Your task to perform on an android device: Show the shopping cart on bestbuy. Search for "macbook pro" on bestbuy, select the first entry, add it to the cart, then select checkout. Image 0: 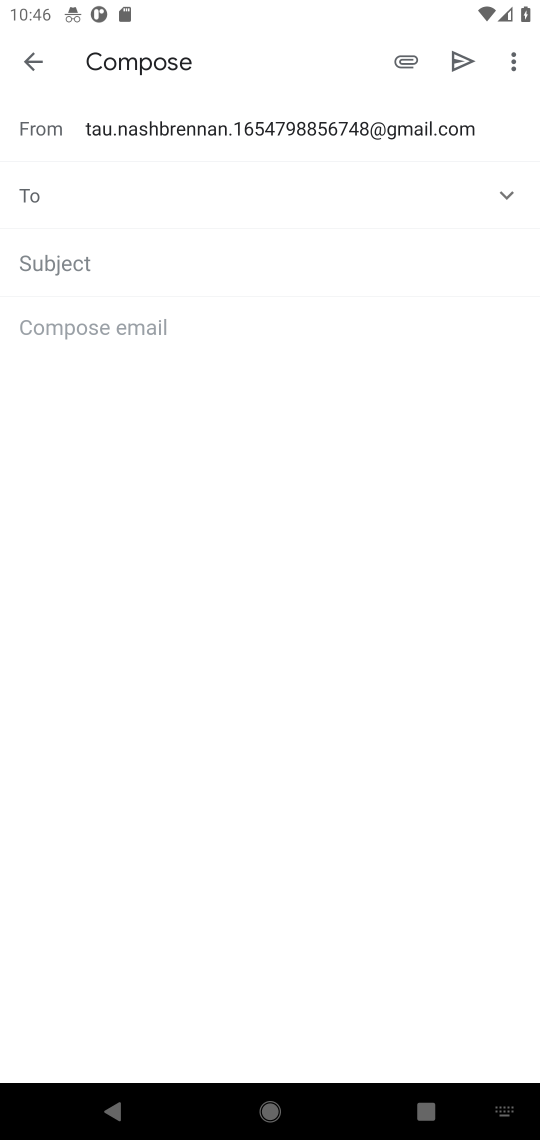
Step 0: press home button
Your task to perform on an android device: Show the shopping cart on bestbuy. Search for "macbook pro" on bestbuy, select the first entry, add it to the cart, then select checkout. Image 1: 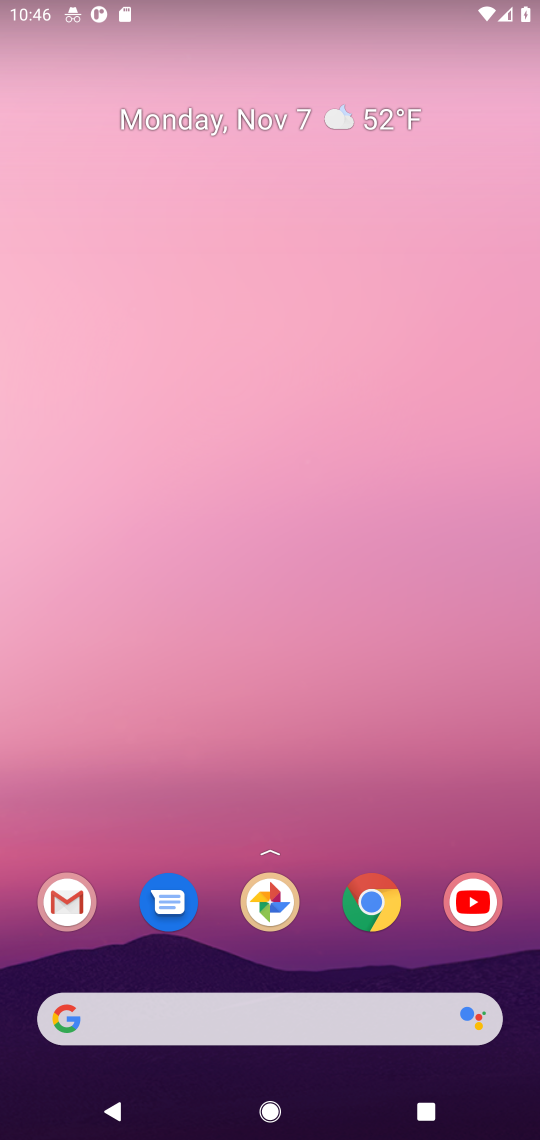
Step 1: click (373, 909)
Your task to perform on an android device: Show the shopping cart on bestbuy. Search for "macbook pro" on bestbuy, select the first entry, add it to the cart, then select checkout. Image 2: 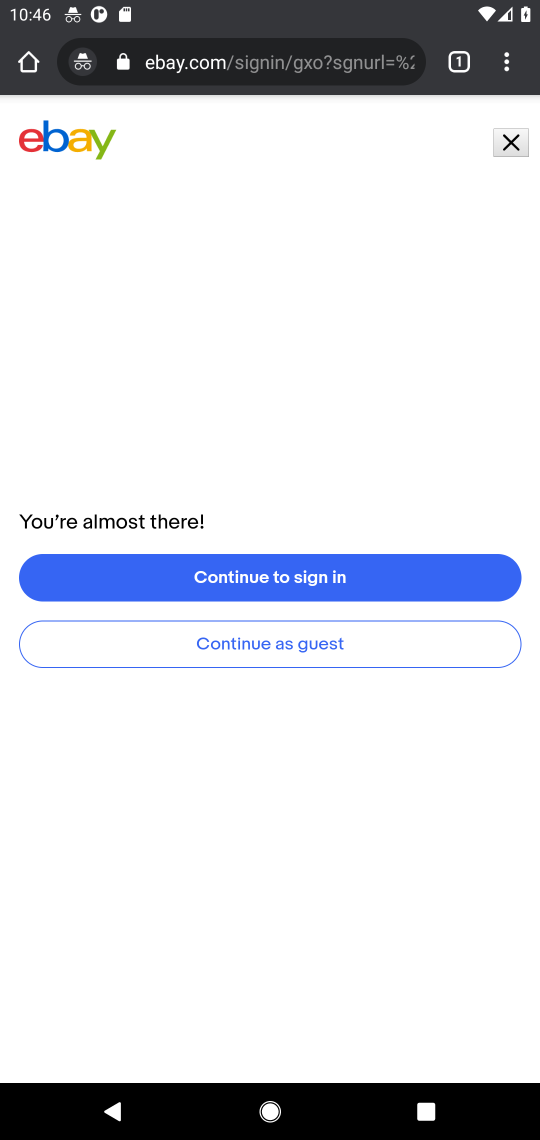
Step 2: click (512, 143)
Your task to perform on an android device: Show the shopping cart on bestbuy. Search for "macbook pro" on bestbuy, select the first entry, add it to the cart, then select checkout. Image 3: 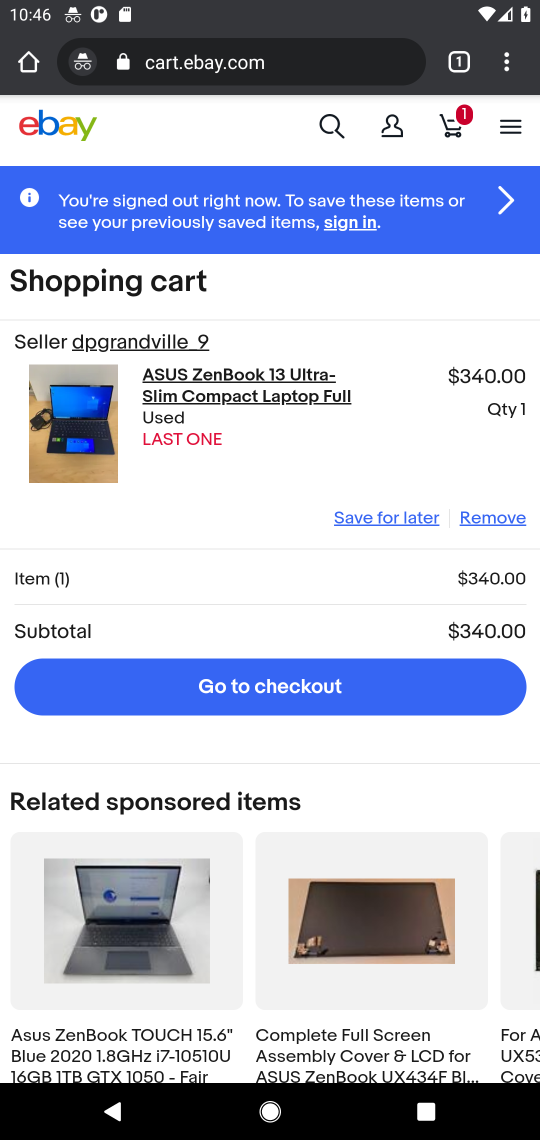
Step 3: click (228, 48)
Your task to perform on an android device: Show the shopping cart on bestbuy. Search for "macbook pro" on bestbuy, select the first entry, add it to the cart, then select checkout. Image 4: 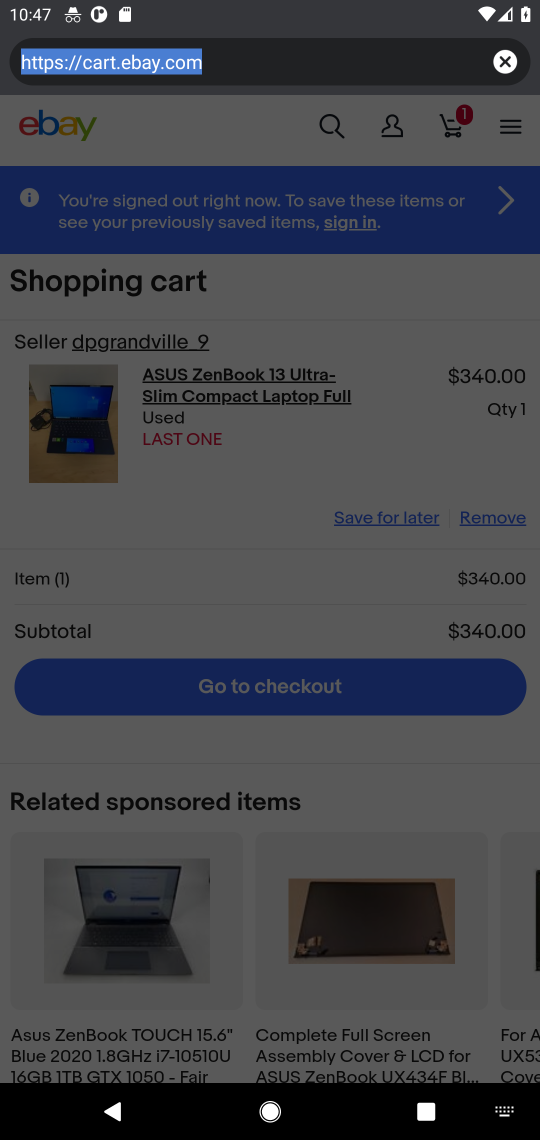
Step 4: type "bestbuy.com"
Your task to perform on an android device: Show the shopping cart on bestbuy. Search for "macbook pro" on bestbuy, select the first entry, add it to the cart, then select checkout. Image 5: 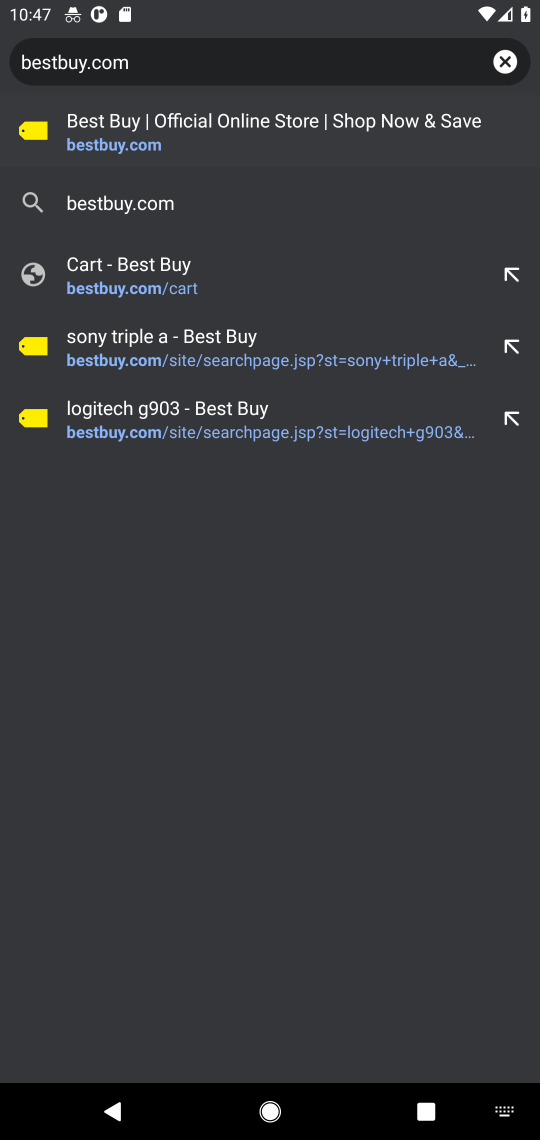
Step 5: click (92, 135)
Your task to perform on an android device: Show the shopping cart on bestbuy. Search for "macbook pro" on bestbuy, select the first entry, add it to the cart, then select checkout. Image 6: 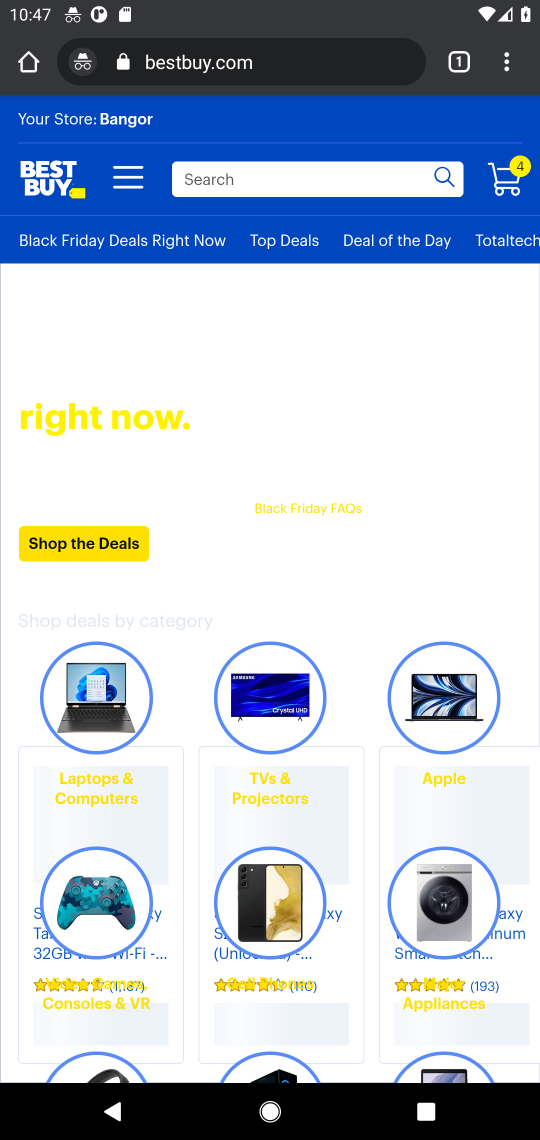
Step 6: click (506, 184)
Your task to perform on an android device: Show the shopping cart on bestbuy. Search for "macbook pro" on bestbuy, select the first entry, add it to the cart, then select checkout. Image 7: 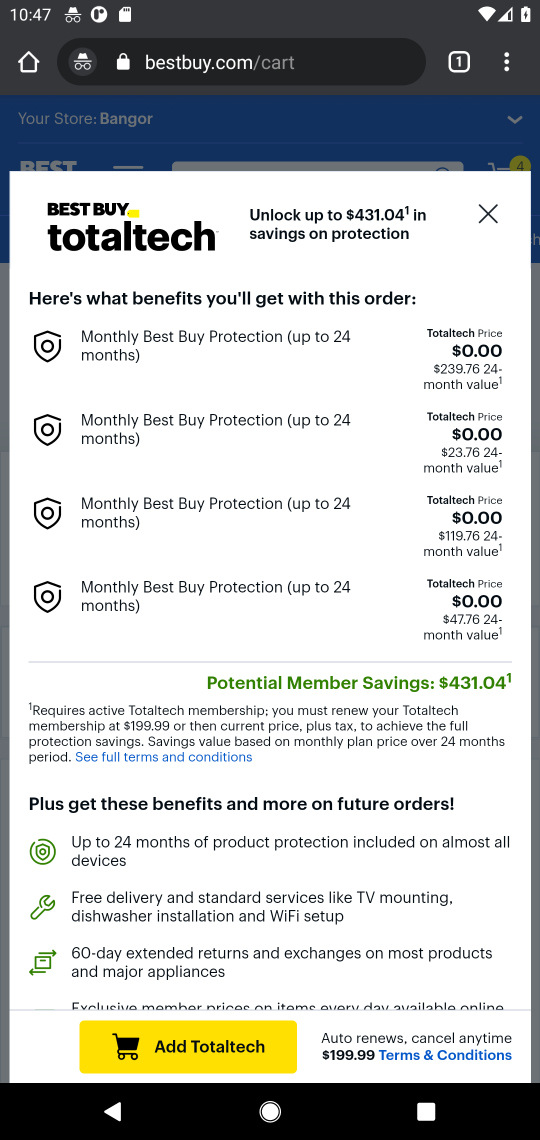
Step 7: click (493, 212)
Your task to perform on an android device: Show the shopping cart on bestbuy. Search for "macbook pro" on bestbuy, select the first entry, add it to the cart, then select checkout. Image 8: 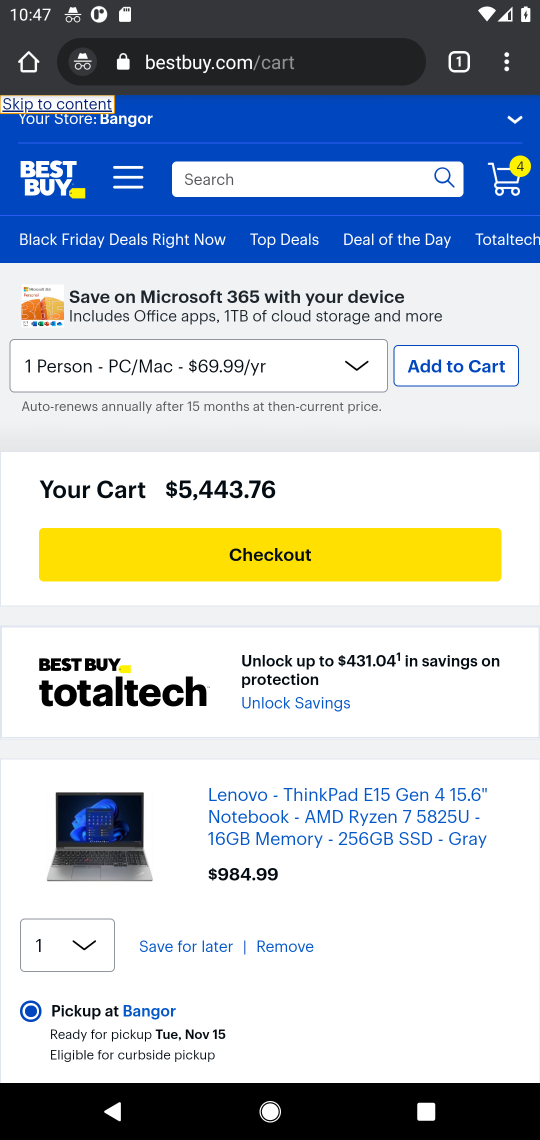
Step 8: drag from (331, 865) to (358, 613)
Your task to perform on an android device: Show the shopping cart on bestbuy. Search for "macbook pro" on bestbuy, select the first entry, add it to the cart, then select checkout. Image 9: 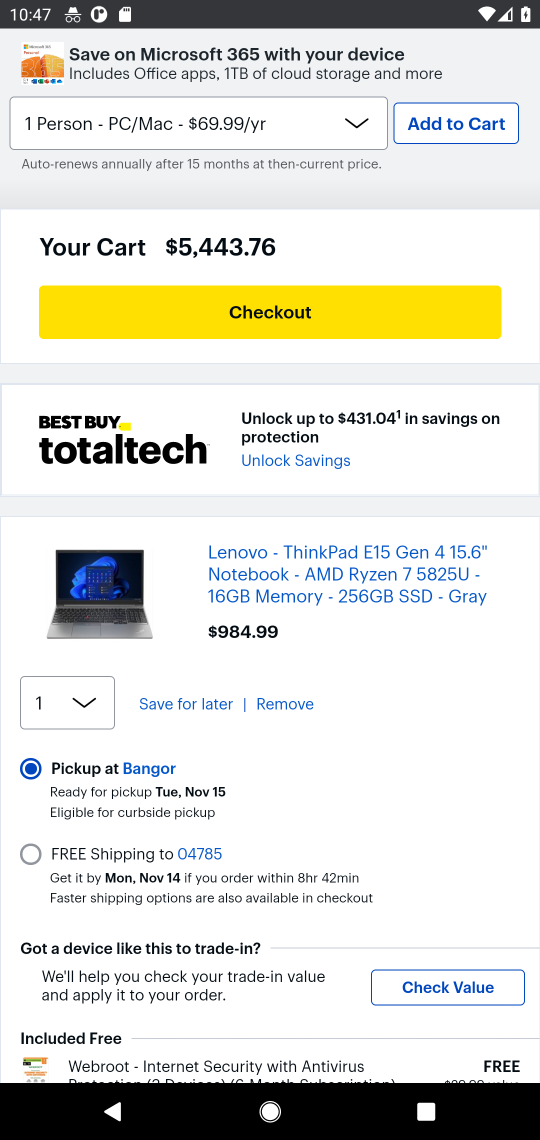
Step 9: drag from (457, 254) to (469, 722)
Your task to perform on an android device: Show the shopping cart on bestbuy. Search for "macbook pro" on bestbuy, select the first entry, add it to the cart, then select checkout. Image 10: 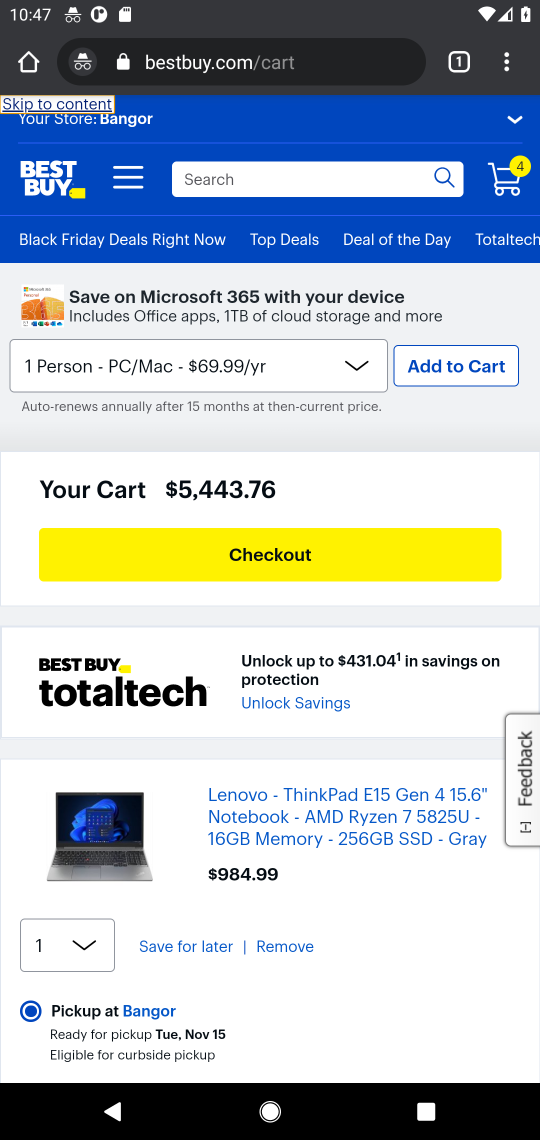
Step 10: click (375, 179)
Your task to perform on an android device: Show the shopping cart on bestbuy. Search for "macbook pro" on bestbuy, select the first entry, add it to the cart, then select checkout. Image 11: 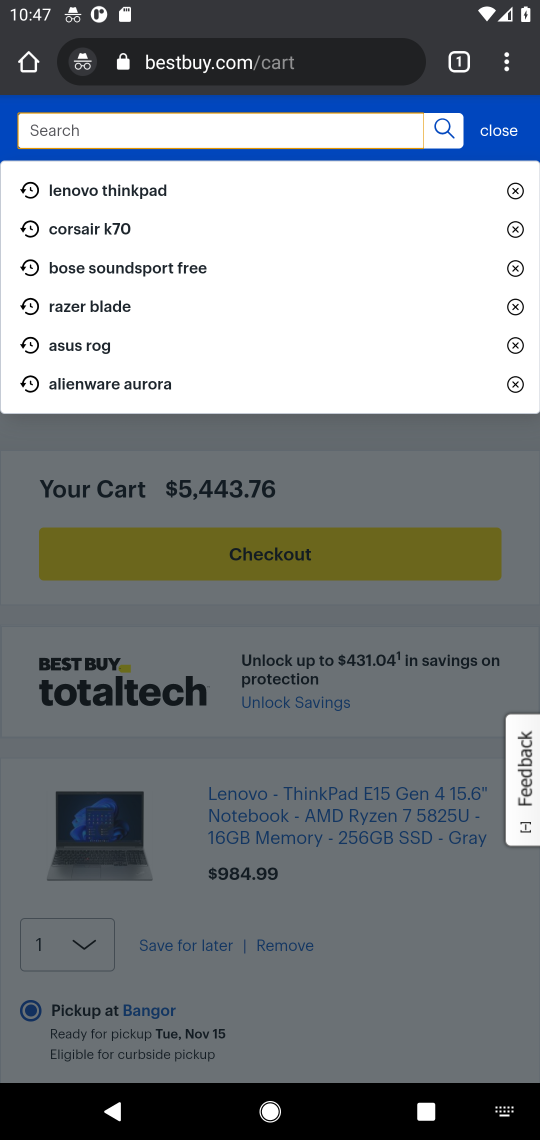
Step 11: type "macbook pro"
Your task to perform on an android device: Show the shopping cart on bestbuy. Search for "macbook pro" on bestbuy, select the first entry, add it to the cart, then select checkout. Image 12: 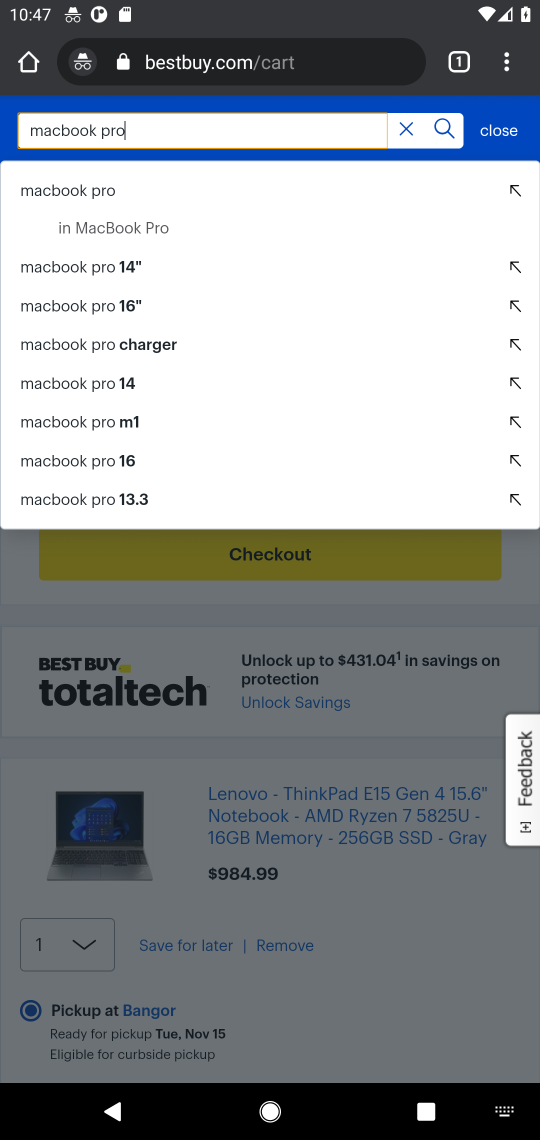
Step 12: click (61, 196)
Your task to perform on an android device: Show the shopping cart on bestbuy. Search for "macbook pro" on bestbuy, select the first entry, add it to the cart, then select checkout. Image 13: 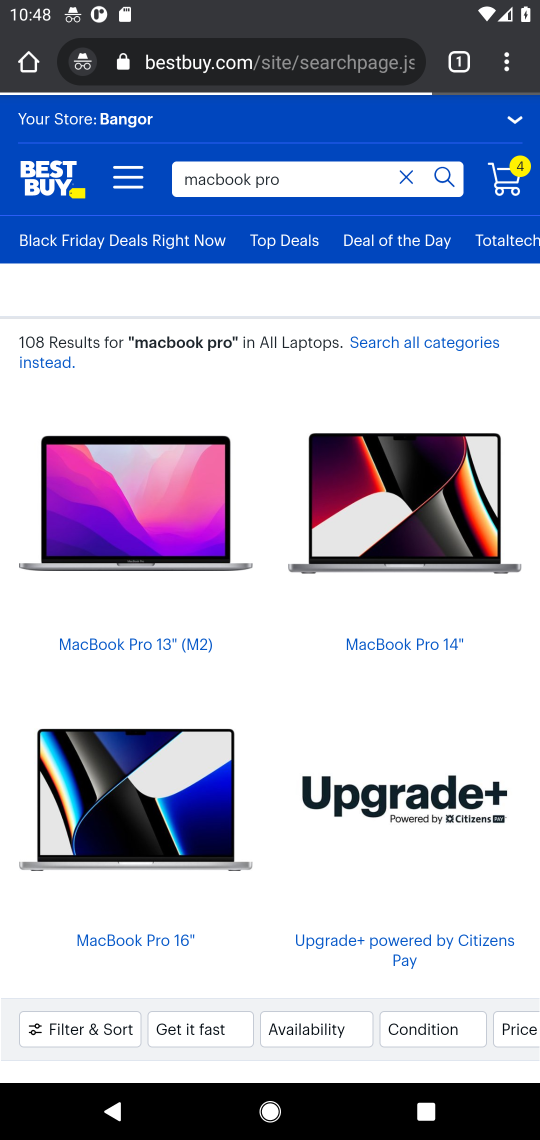
Step 13: drag from (245, 683) to (230, 345)
Your task to perform on an android device: Show the shopping cart on bestbuy. Search for "macbook pro" on bestbuy, select the first entry, add it to the cart, then select checkout. Image 14: 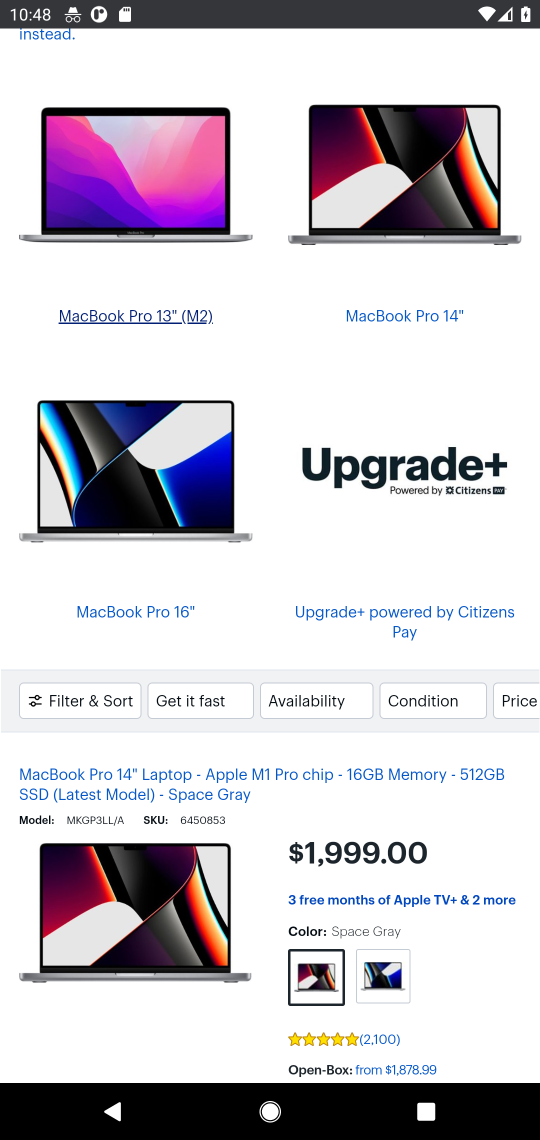
Step 14: drag from (227, 558) to (225, 245)
Your task to perform on an android device: Show the shopping cart on bestbuy. Search for "macbook pro" on bestbuy, select the first entry, add it to the cart, then select checkout. Image 15: 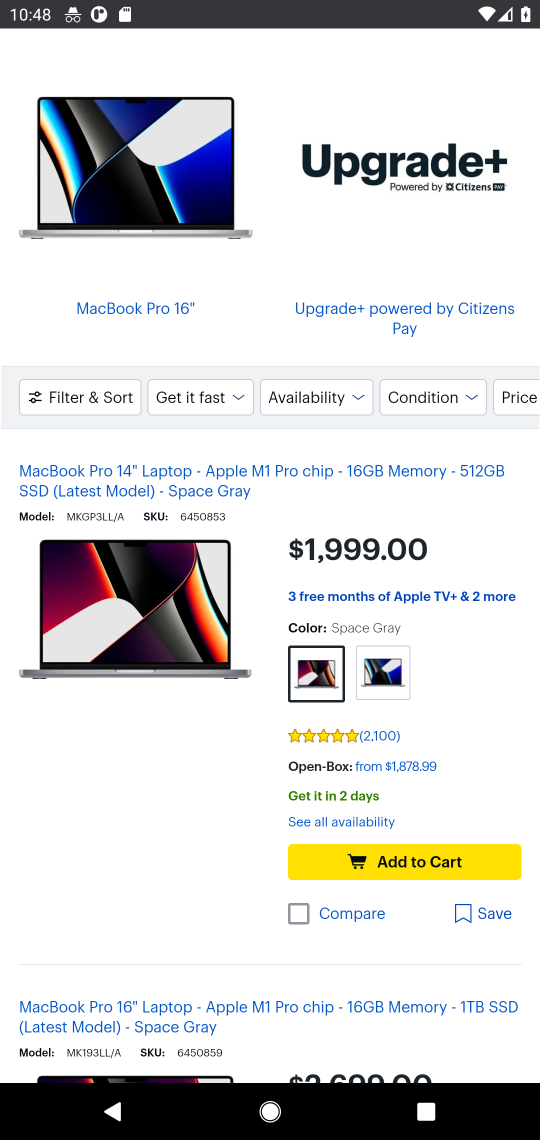
Step 15: click (387, 868)
Your task to perform on an android device: Show the shopping cart on bestbuy. Search for "macbook pro" on bestbuy, select the first entry, add it to the cart, then select checkout. Image 16: 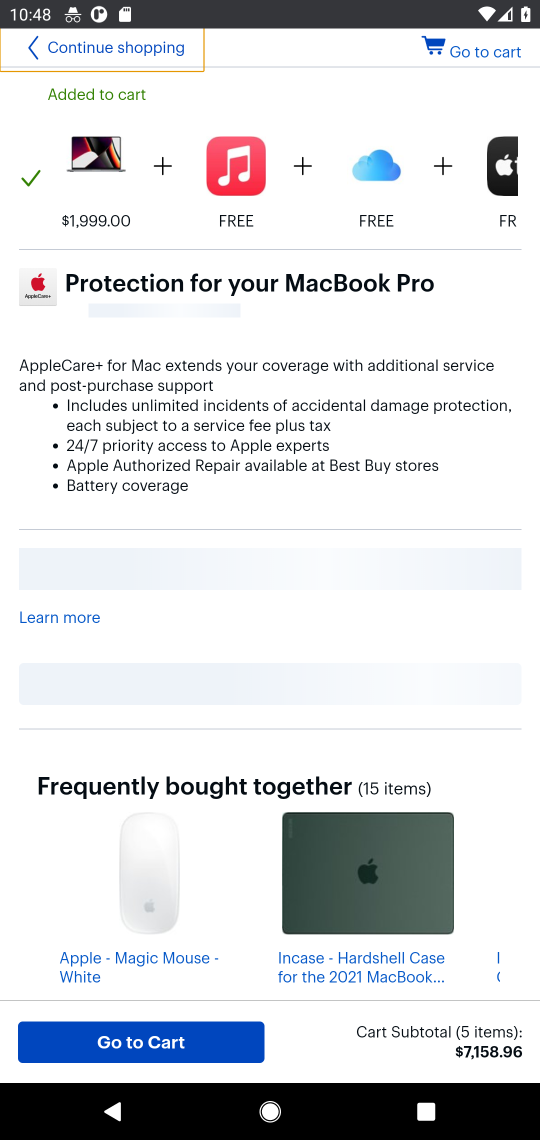
Step 16: click (487, 62)
Your task to perform on an android device: Show the shopping cart on bestbuy. Search for "macbook pro" on bestbuy, select the first entry, add it to the cart, then select checkout. Image 17: 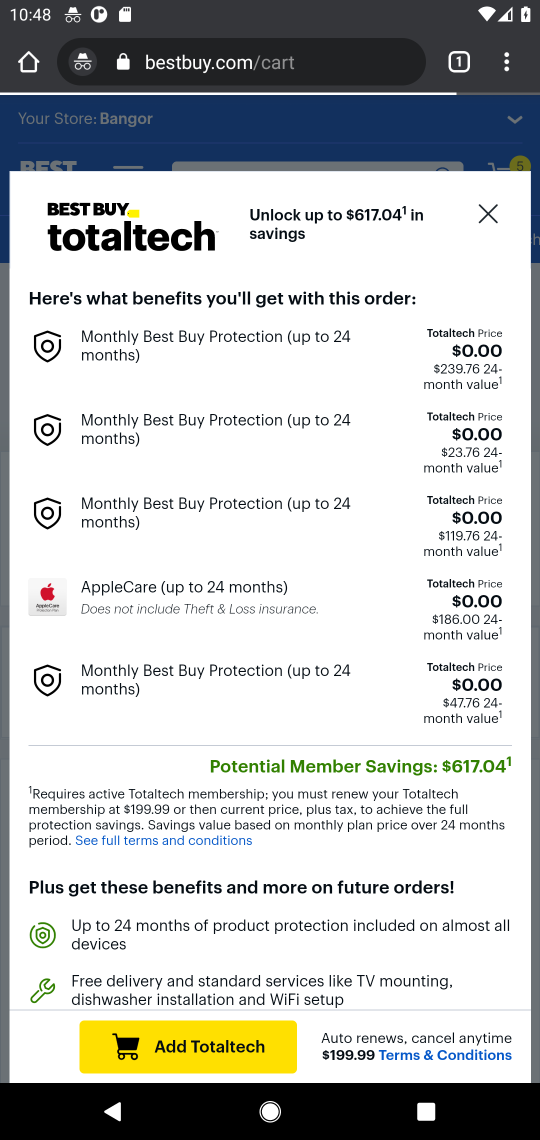
Step 17: click (485, 217)
Your task to perform on an android device: Show the shopping cart on bestbuy. Search for "macbook pro" on bestbuy, select the first entry, add it to the cart, then select checkout. Image 18: 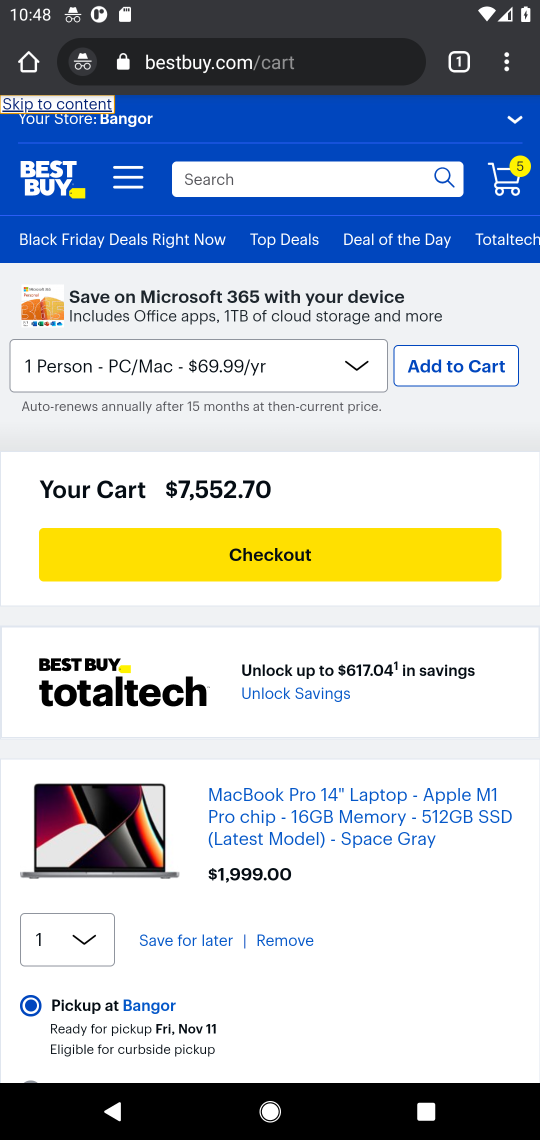
Step 18: click (276, 561)
Your task to perform on an android device: Show the shopping cart on bestbuy. Search for "macbook pro" on bestbuy, select the first entry, add it to the cart, then select checkout. Image 19: 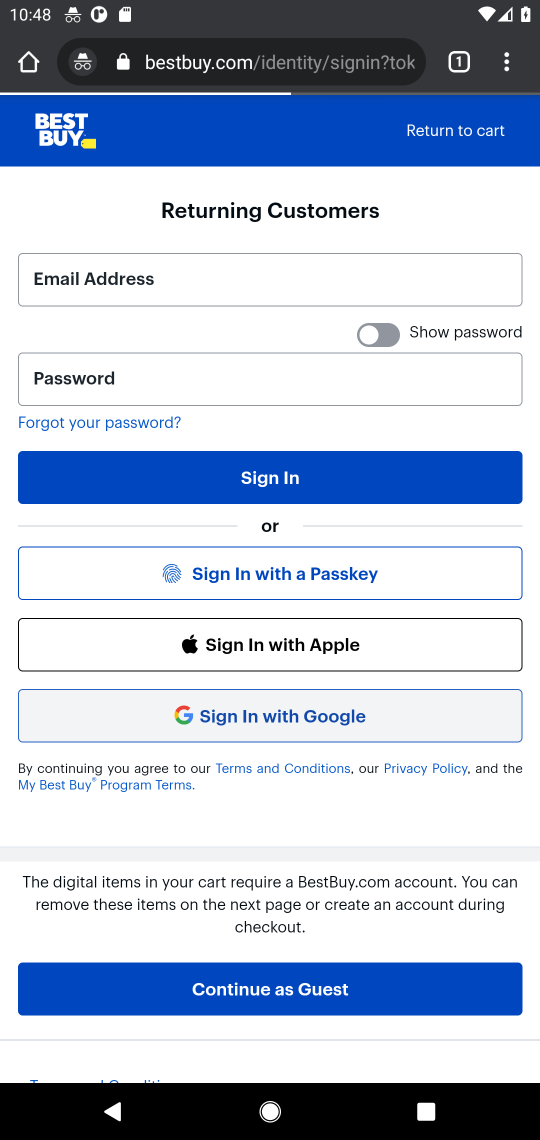
Step 19: task complete